Your task to perform on an android device: check storage Image 0: 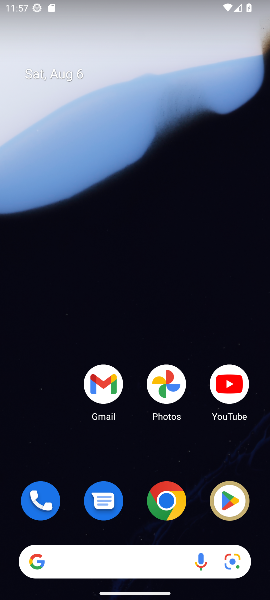
Step 0: drag from (121, 516) to (146, 100)
Your task to perform on an android device: check storage Image 1: 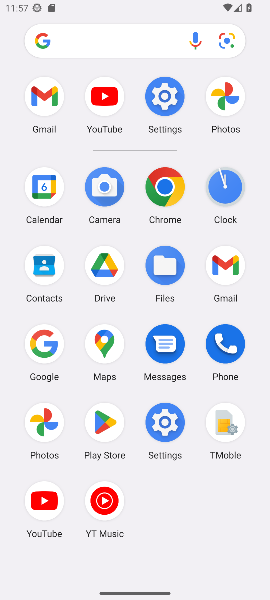
Step 1: click (172, 439)
Your task to perform on an android device: check storage Image 2: 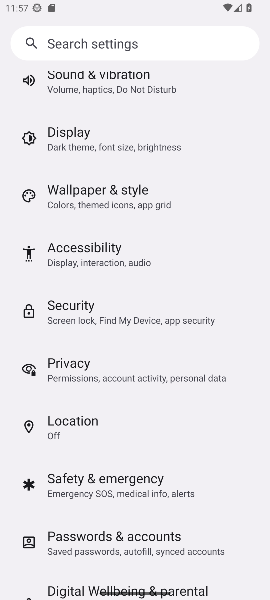
Step 2: drag from (73, 515) to (78, 250)
Your task to perform on an android device: check storage Image 3: 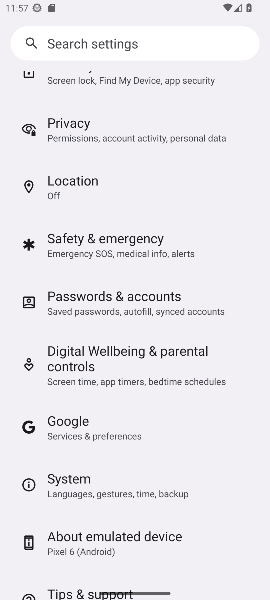
Step 3: drag from (123, 195) to (101, 561)
Your task to perform on an android device: check storage Image 4: 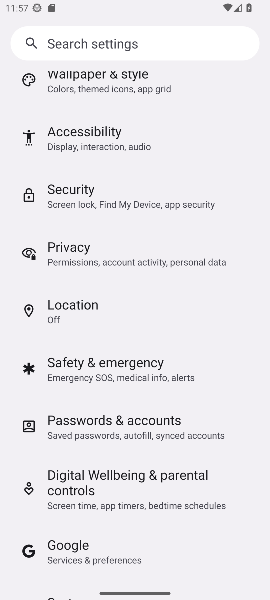
Step 4: drag from (140, 244) to (126, 408)
Your task to perform on an android device: check storage Image 5: 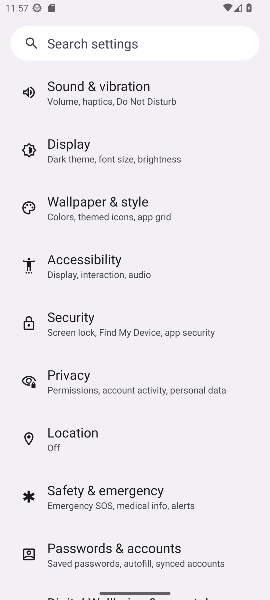
Step 5: drag from (90, 127) to (100, 315)
Your task to perform on an android device: check storage Image 6: 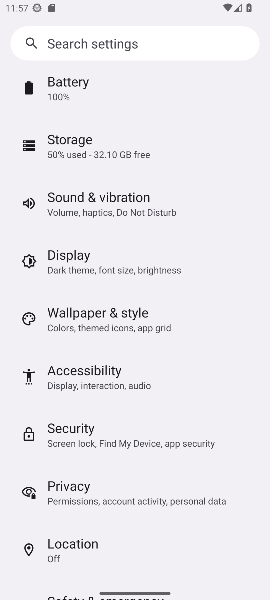
Step 6: drag from (100, 165) to (100, 376)
Your task to perform on an android device: check storage Image 7: 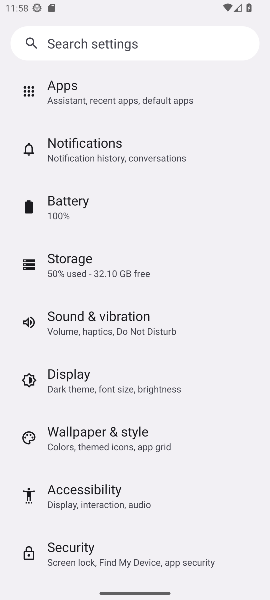
Step 7: drag from (92, 218) to (95, 436)
Your task to perform on an android device: check storage Image 8: 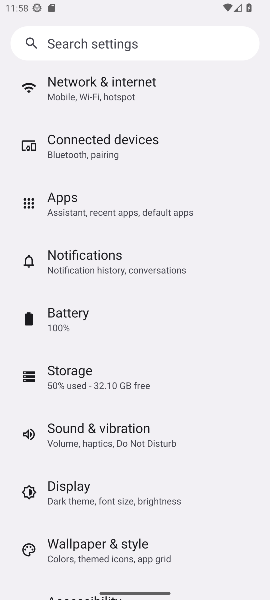
Step 8: drag from (143, 186) to (109, 428)
Your task to perform on an android device: check storage Image 9: 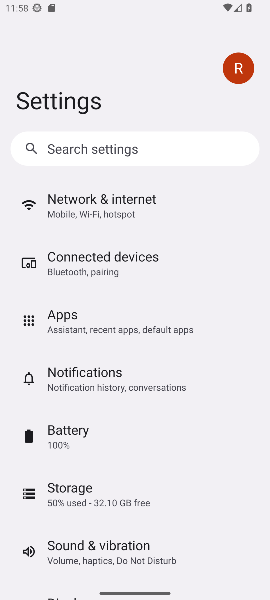
Step 9: click (81, 491)
Your task to perform on an android device: check storage Image 10: 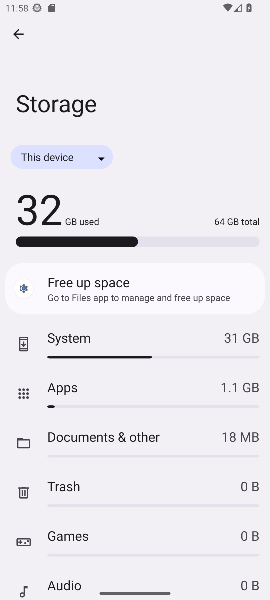
Step 10: task complete